Your task to perform on an android device: toggle javascript in the chrome app Image 0: 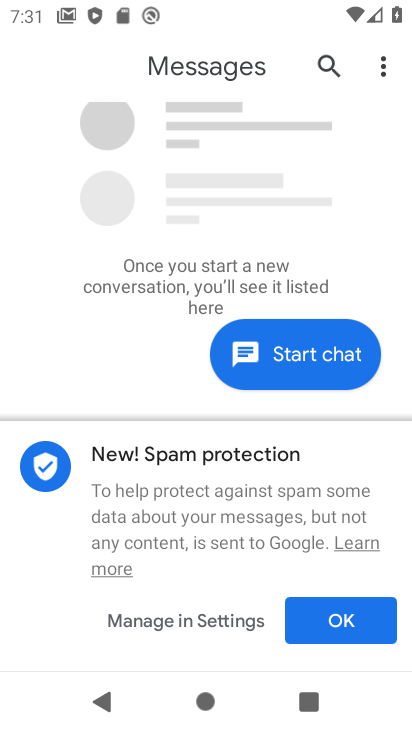
Step 0: press home button
Your task to perform on an android device: toggle javascript in the chrome app Image 1: 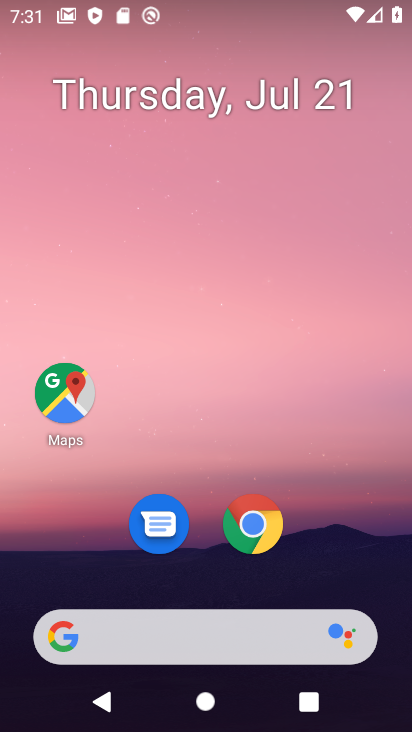
Step 1: click (254, 533)
Your task to perform on an android device: toggle javascript in the chrome app Image 2: 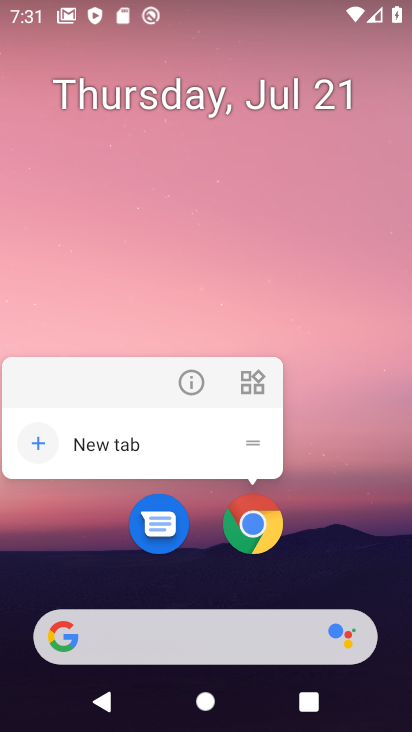
Step 2: click (254, 532)
Your task to perform on an android device: toggle javascript in the chrome app Image 3: 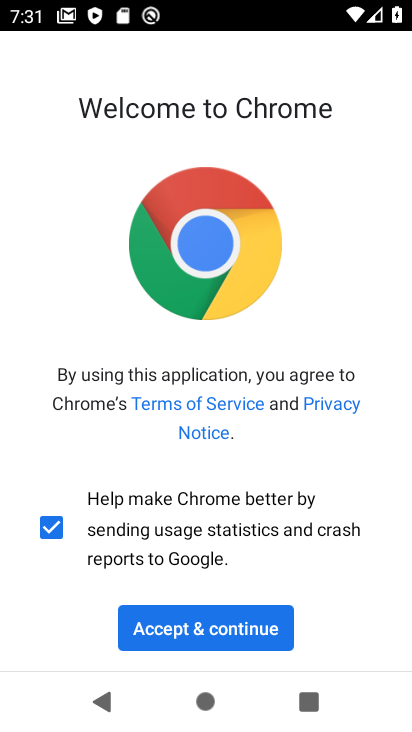
Step 3: click (193, 643)
Your task to perform on an android device: toggle javascript in the chrome app Image 4: 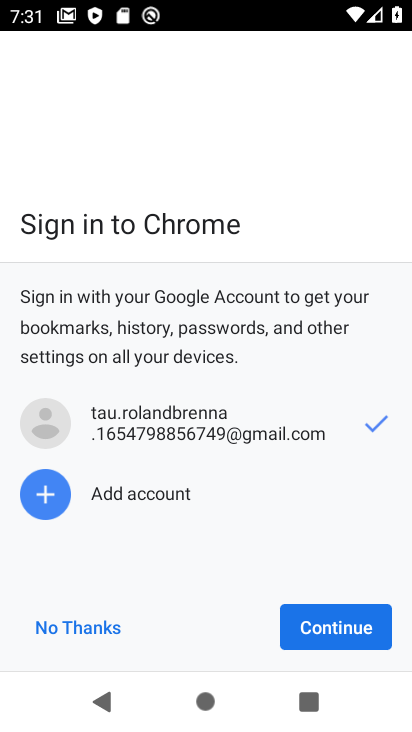
Step 4: click (322, 624)
Your task to perform on an android device: toggle javascript in the chrome app Image 5: 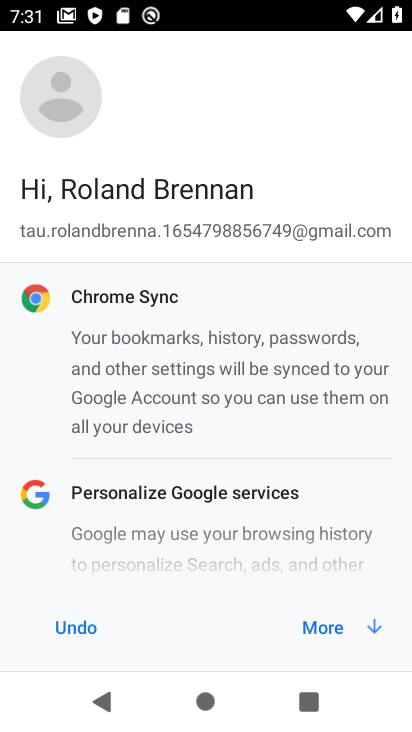
Step 5: click (322, 624)
Your task to perform on an android device: toggle javascript in the chrome app Image 6: 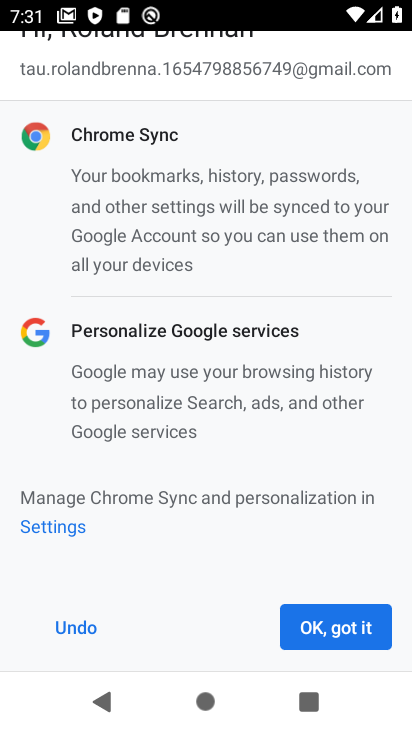
Step 6: click (322, 624)
Your task to perform on an android device: toggle javascript in the chrome app Image 7: 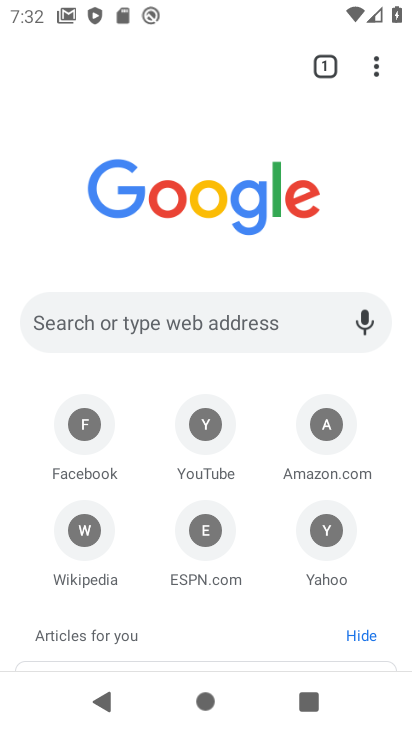
Step 7: drag from (371, 68) to (270, 562)
Your task to perform on an android device: toggle javascript in the chrome app Image 8: 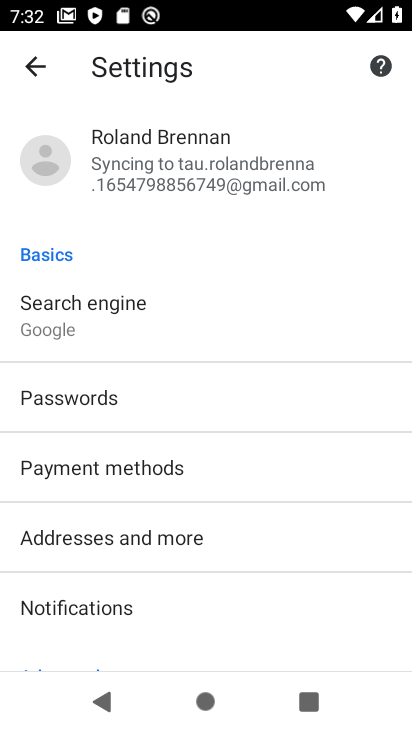
Step 8: drag from (226, 588) to (367, 252)
Your task to perform on an android device: toggle javascript in the chrome app Image 9: 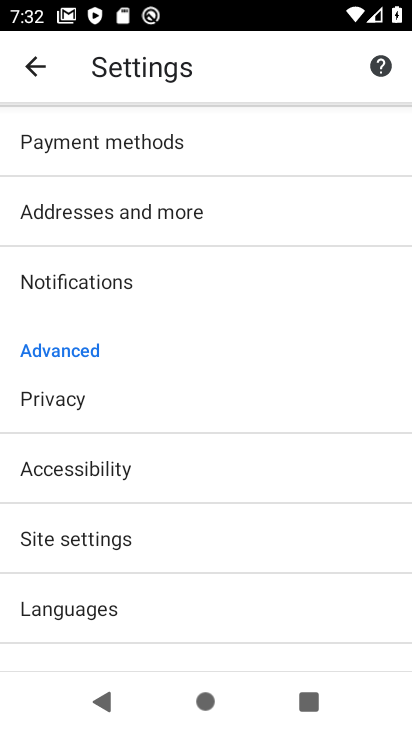
Step 9: click (120, 522)
Your task to perform on an android device: toggle javascript in the chrome app Image 10: 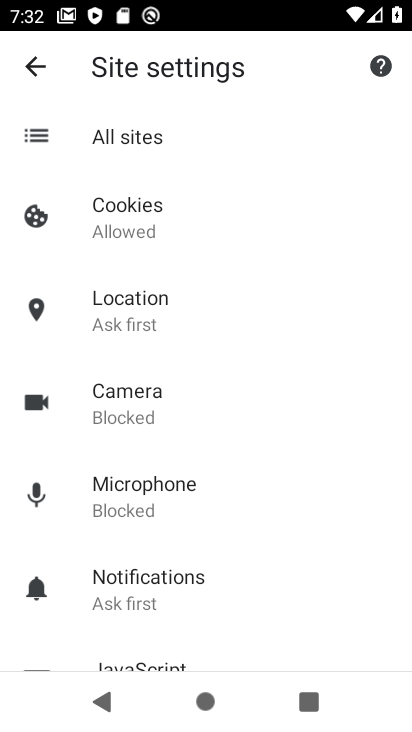
Step 10: drag from (274, 553) to (363, 335)
Your task to perform on an android device: toggle javascript in the chrome app Image 11: 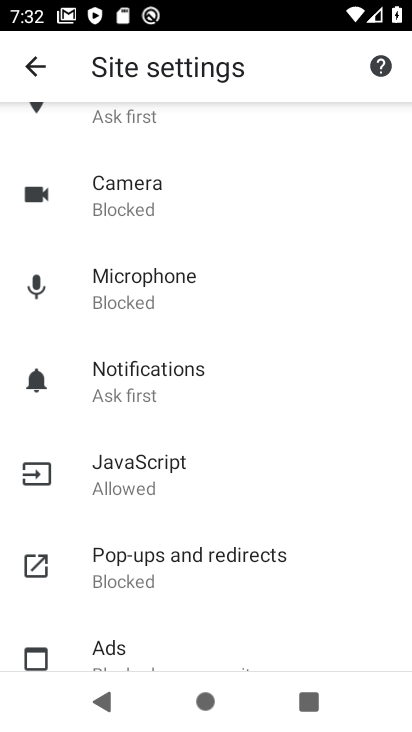
Step 11: click (150, 464)
Your task to perform on an android device: toggle javascript in the chrome app Image 12: 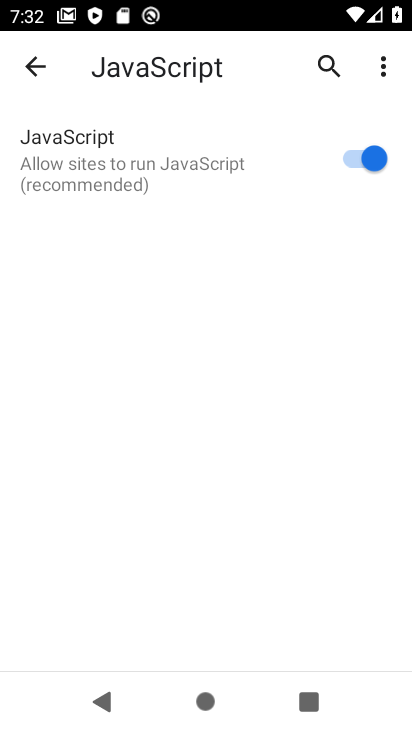
Step 12: click (355, 161)
Your task to perform on an android device: toggle javascript in the chrome app Image 13: 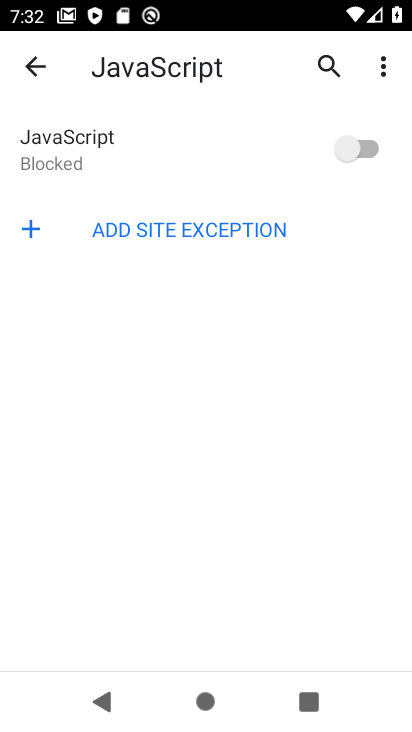
Step 13: task complete